Your task to perform on an android device: see sites visited before in the chrome app Image 0: 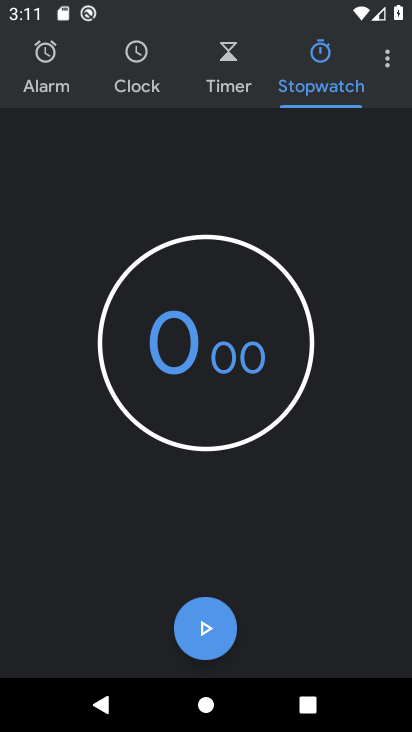
Step 0: press home button
Your task to perform on an android device: see sites visited before in the chrome app Image 1: 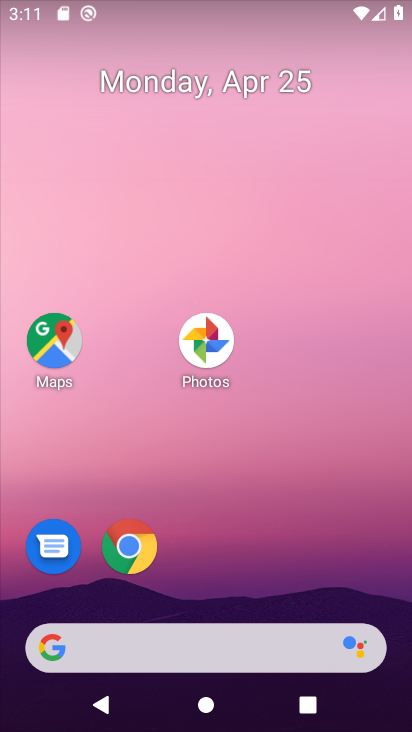
Step 1: drag from (291, 577) to (333, 194)
Your task to perform on an android device: see sites visited before in the chrome app Image 2: 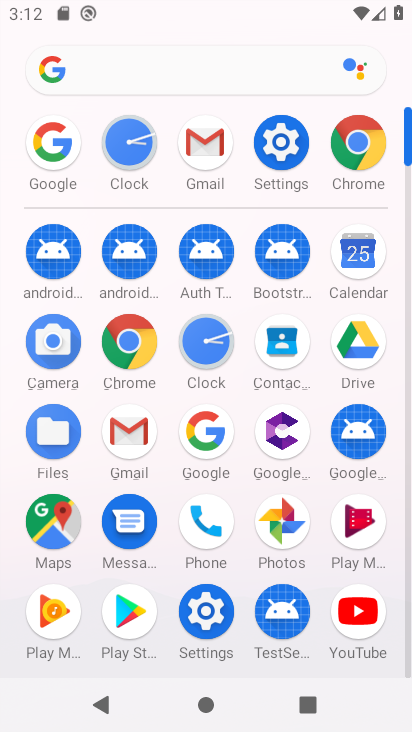
Step 2: click (359, 133)
Your task to perform on an android device: see sites visited before in the chrome app Image 3: 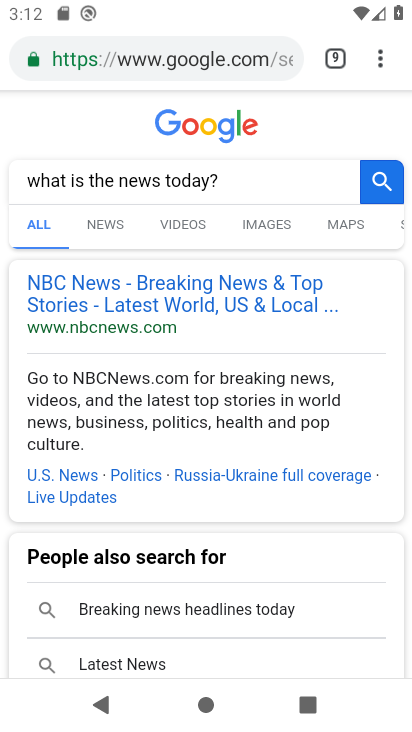
Step 3: click (370, 55)
Your task to perform on an android device: see sites visited before in the chrome app Image 4: 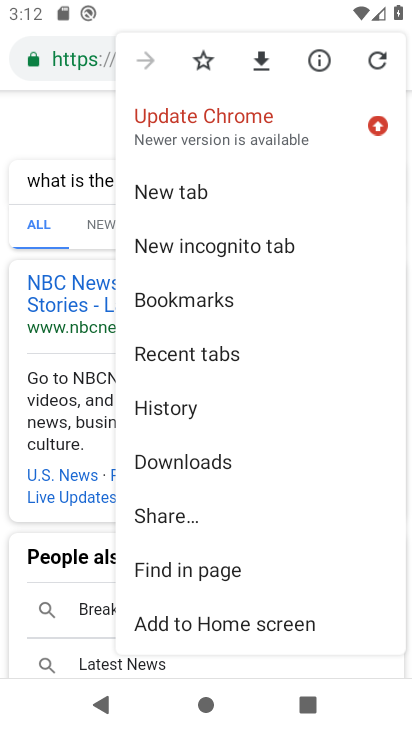
Step 4: drag from (250, 550) to (268, 375)
Your task to perform on an android device: see sites visited before in the chrome app Image 5: 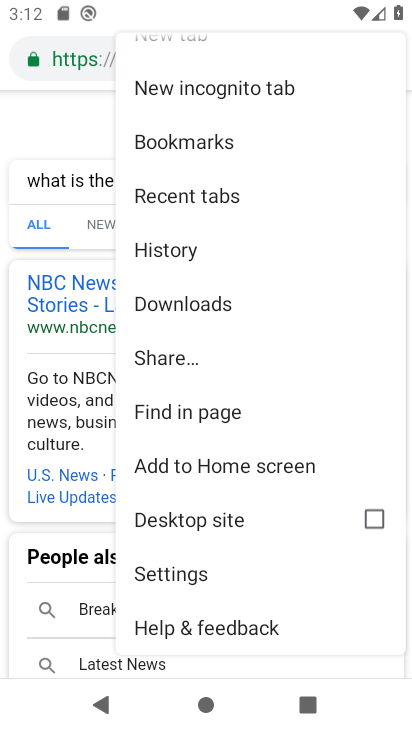
Step 5: click (198, 257)
Your task to perform on an android device: see sites visited before in the chrome app Image 6: 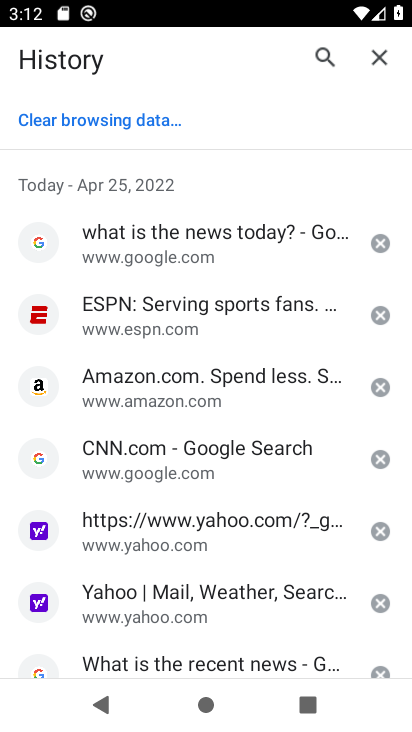
Step 6: task complete